Your task to perform on an android device: delete the emails in spam in the gmail app Image 0: 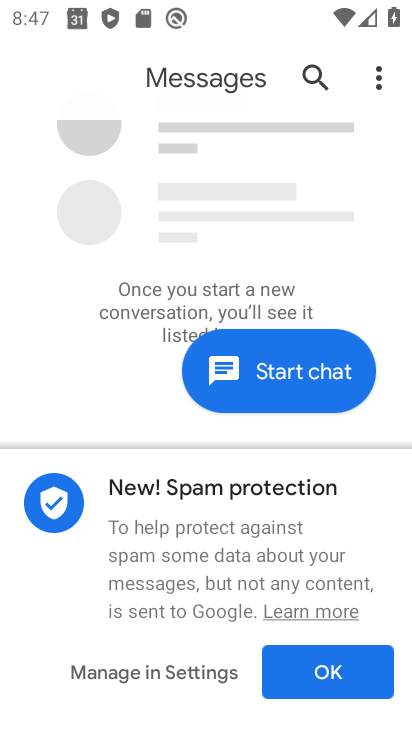
Step 0: press back button
Your task to perform on an android device: delete the emails in spam in the gmail app Image 1: 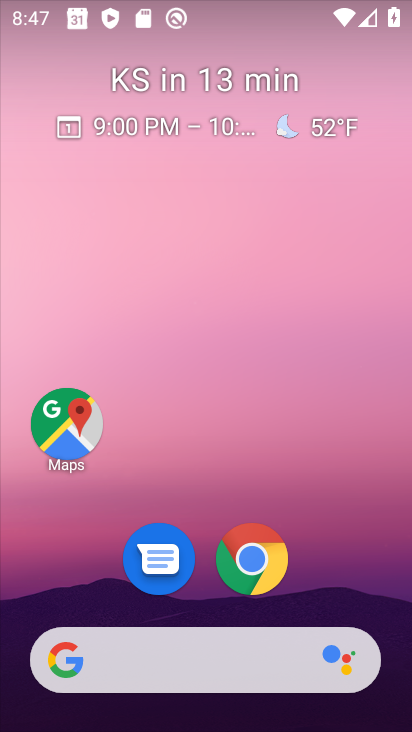
Step 1: drag from (349, 457) to (296, 0)
Your task to perform on an android device: delete the emails in spam in the gmail app Image 2: 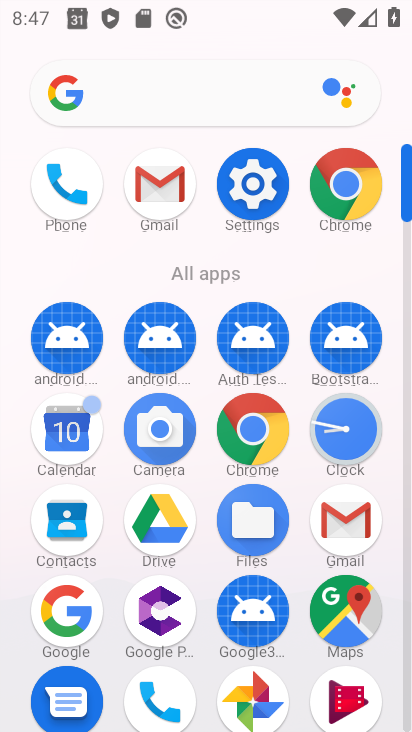
Step 2: click (159, 178)
Your task to perform on an android device: delete the emails in spam in the gmail app Image 3: 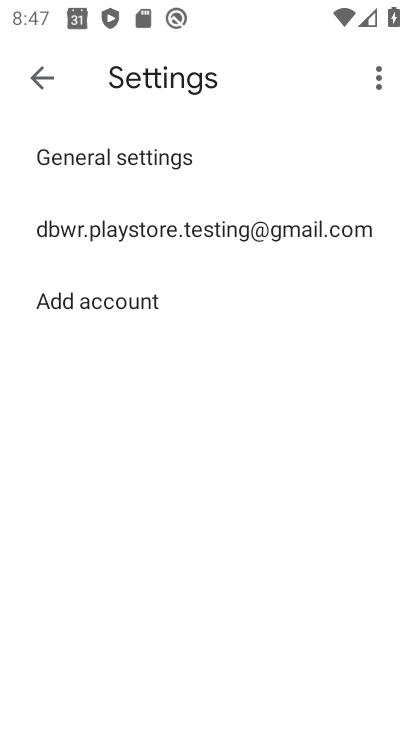
Step 3: click (117, 228)
Your task to perform on an android device: delete the emails in spam in the gmail app Image 4: 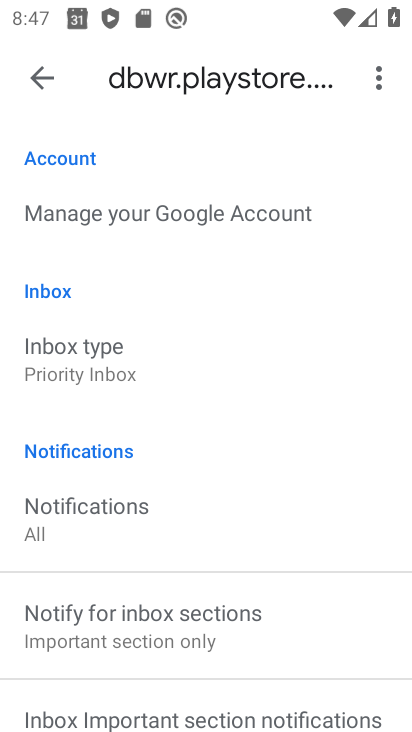
Step 4: drag from (315, 564) to (367, 162)
Your task to perform on an android device: delete the emails in spam in the gmail app Image 5: 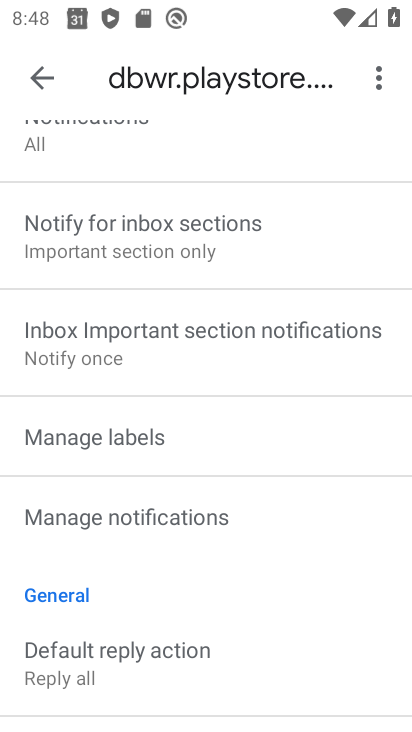
Step 5: click (41, 76)
Your task to perform on an android device: delete the emails in spam in the gmail app Image 6: 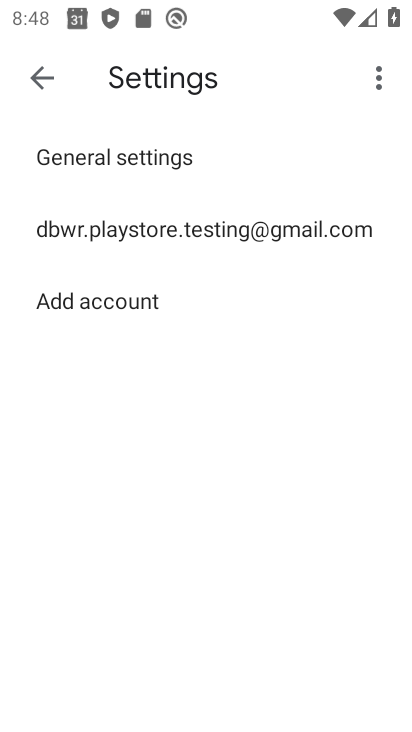
Step 6: click (41, 76)
Your task to perform on an android device: delete the emails in spam in the gmail app Image 7: 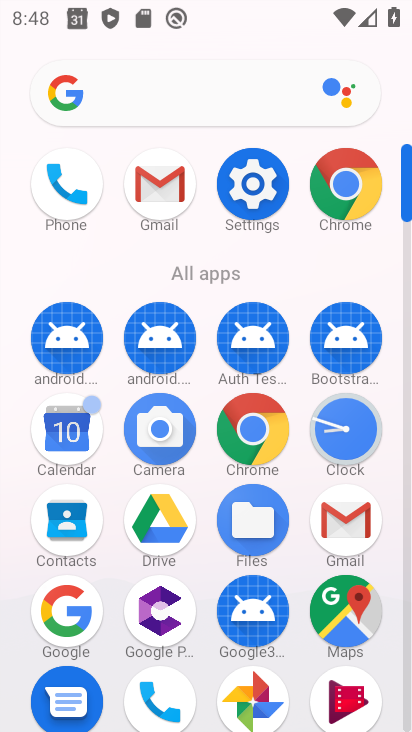
Step 7: click (164, 183)
Your task to perform on an android device: delete the emails in spam in the gmail app Image 8: 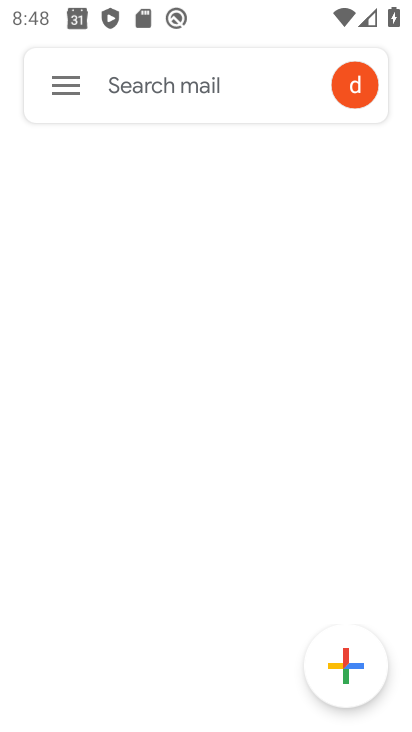
Step 8: click (57, 96)
Your task to perform on an android device: delete the emails in spam in the gmail app Image 9: 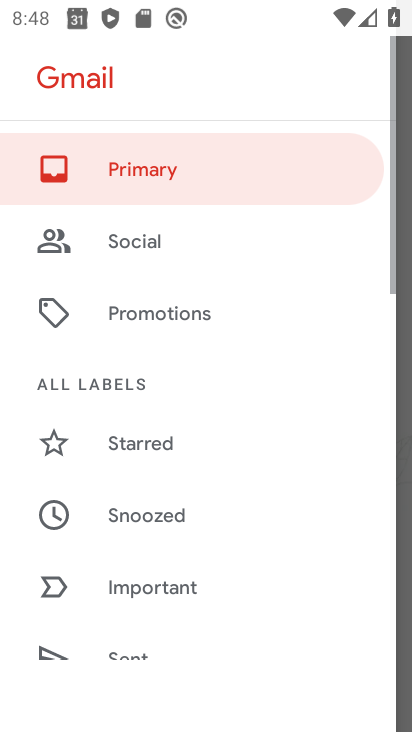
Step 9: drag from (126, 568) to (214, 183)
Your task to perform on an android device: delete the emails in spam in the gmail app Image 10: 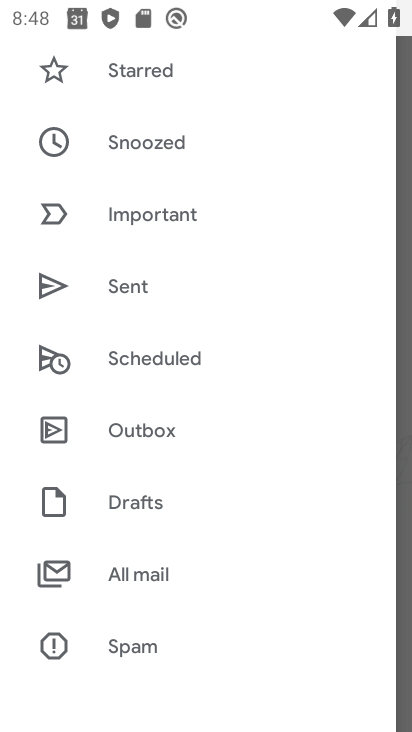
Step 10: click (123, 632)
Your task to perform on an android device: delete the emails in spam in the gmail app Image 11: 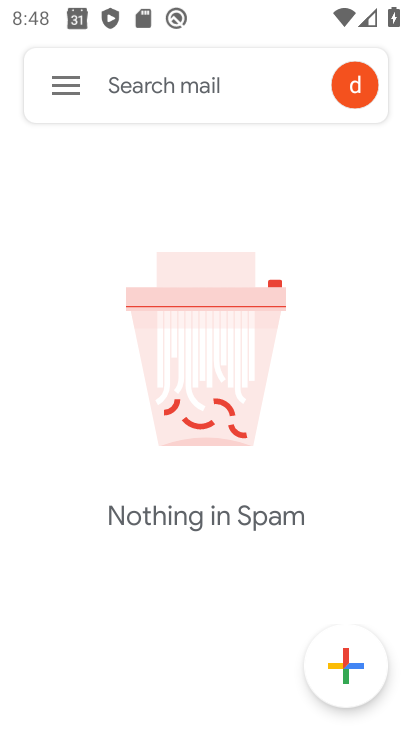
Step 11: task complete